Your task to perform on an android device: open the mobile data screen to see how much data has been used Image 0: 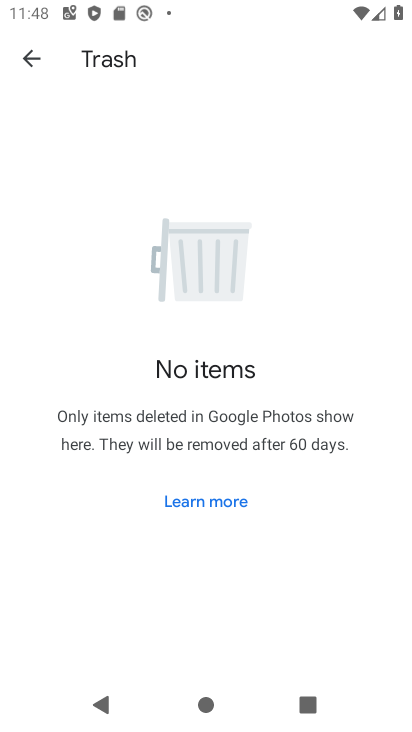
Step 0: press home button
Your task to perform on an android device: open the mobile data screen to see how much data has been used Image 1: 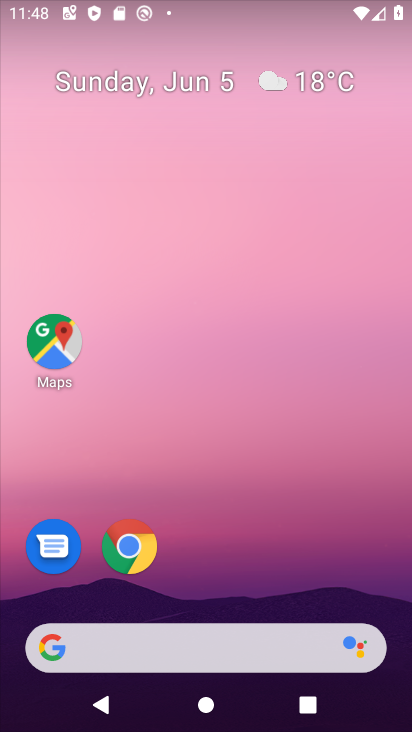
Step 1: drag from (277, 566) to (256, 192)
Your task to perform on an android device: open the mobile data screen to see how much data has been used Image 2: 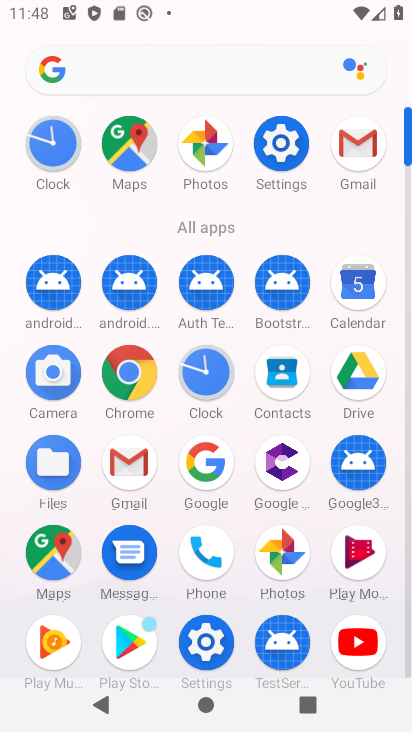
Step 2: click (283, 142)
Your task to perform on an android device: open the mobile data screen to see how much data has been used Image 3: 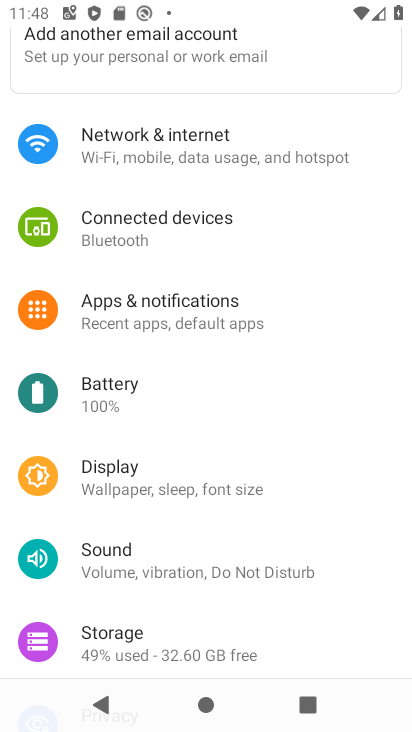
Step 3: click (268, 166)
Your task to perform on an android device: open the mobile data screen to see how much data has been used Image 4: 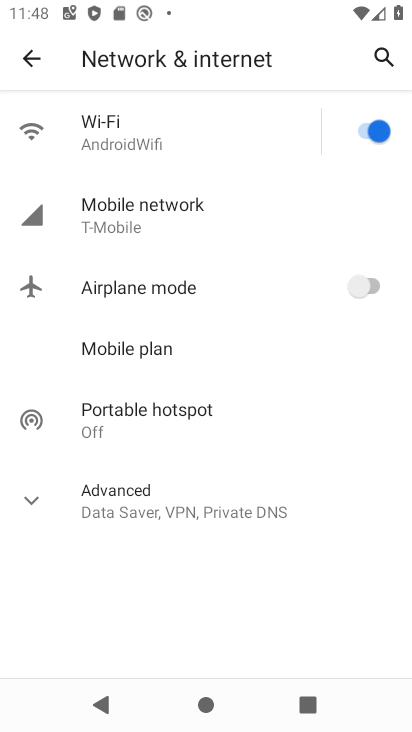
Step 4: click (166, 222)
Your task to perform on an android device: open the mobile data screen to see how much data has been used Image 5: 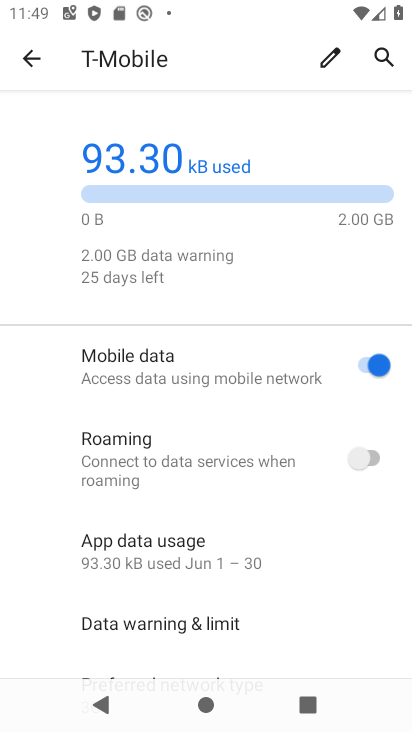
Step 5: task complete